Your task to perform on an android device: Turn on the flashlight Image 0: 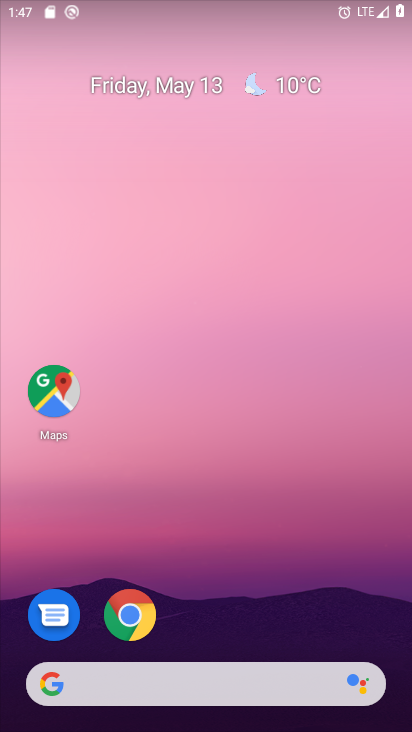
Step 0: drag from (268, 607) to (263, 32)
Your task to perform on an android device: Turn on the flashlight Image 1: 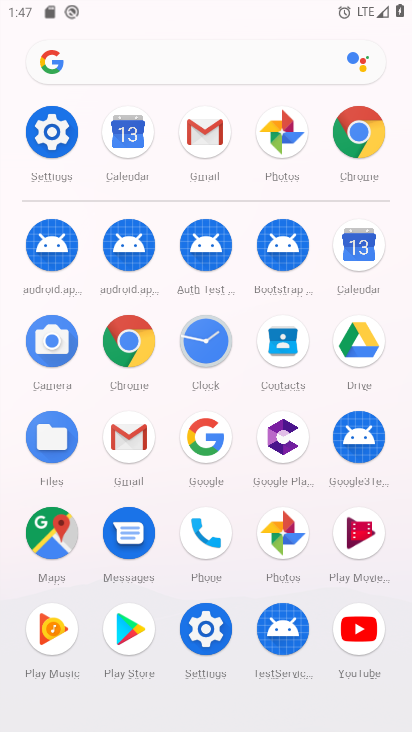
Step 1: click (56, 127)
Your task to perform on an android device: Turn on the flashlight Image 2: 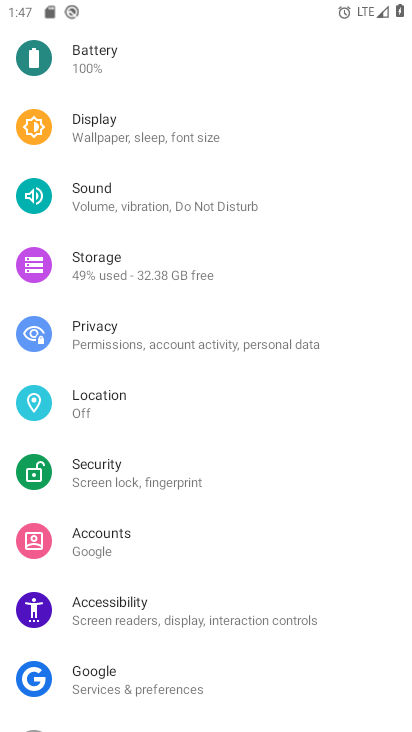
Step 2: drag from (234, 180) to (220, 630)
Your task to perform on an android device: Turn on the flashlight Image 3: 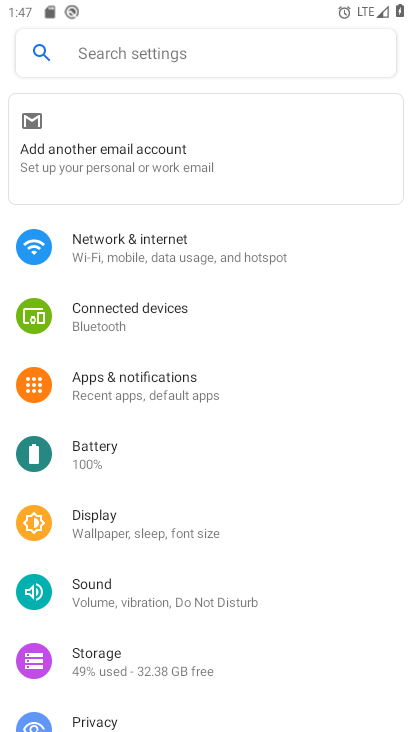
Step 3: click (247, 47)
Your task to perform on an android device: Turn on the flashlight Image 4: 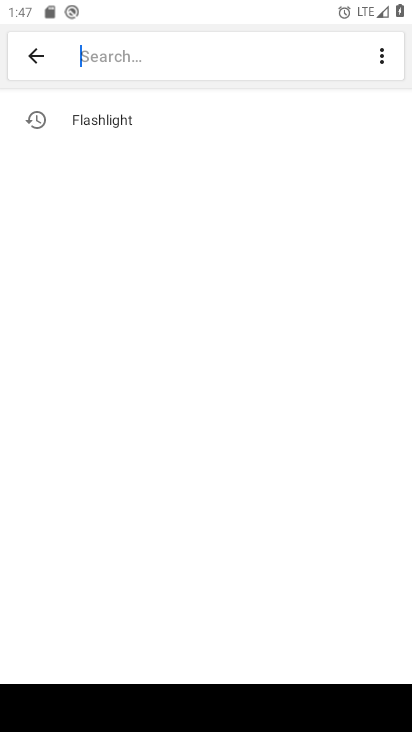
Step 4: click (114, 119)
Your task to perform on an android device: Turn on the flashlight Image 5: 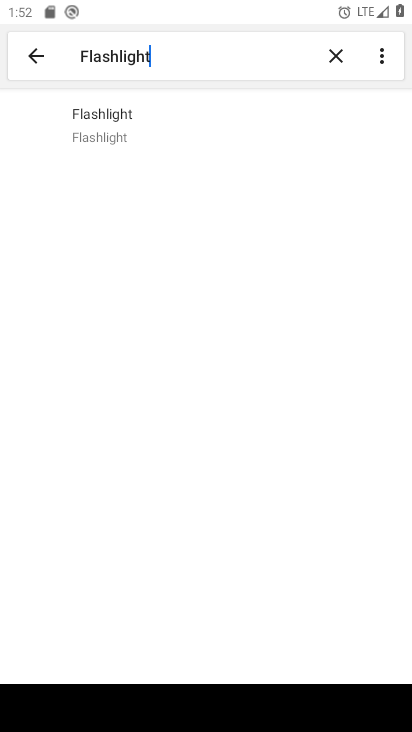
Step 5: task complete